Your task to perform on an android device: turn on bluetooth scan Image 0: 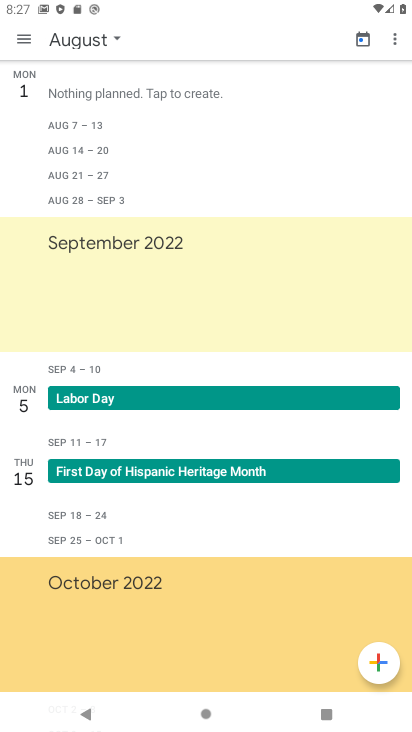
Step 0: press home button
Your task to perform on an android device: turn on bluetooth scan Image 1: 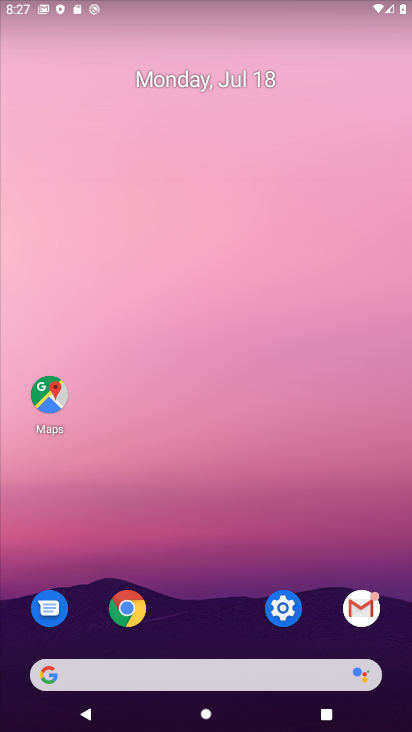
Step 1: click (276, 624)
Your task to perform on an android device: turn on bluetooth scan Image 2: 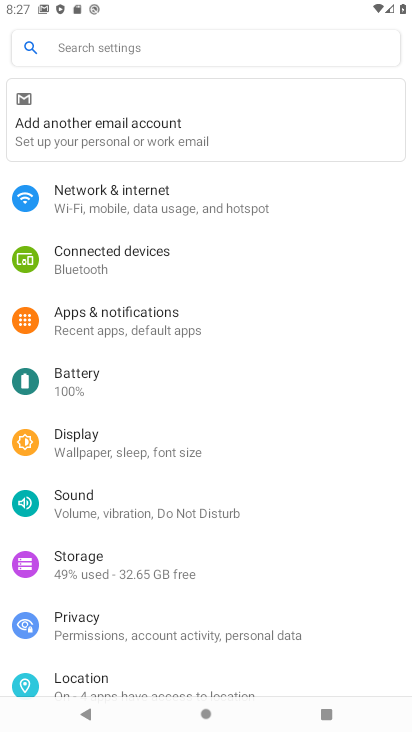
Step 2: click (143, 674)
Your task to perform on an android device: turn on bluetooth scan Image 3: 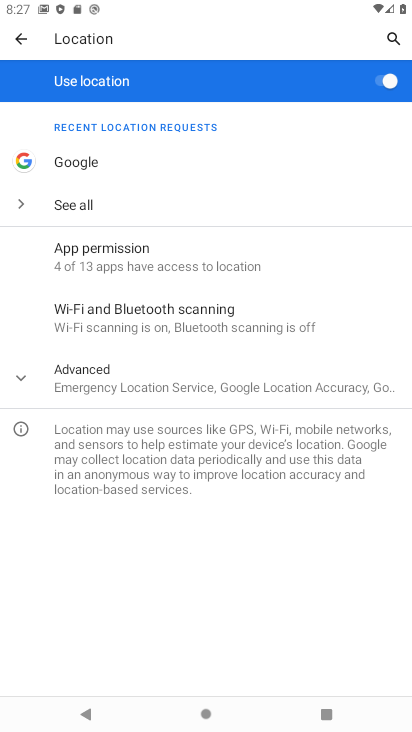
Step 3: click (132, 323)
Your task to perform on an android device: turn on bluetooth scan Image 4: 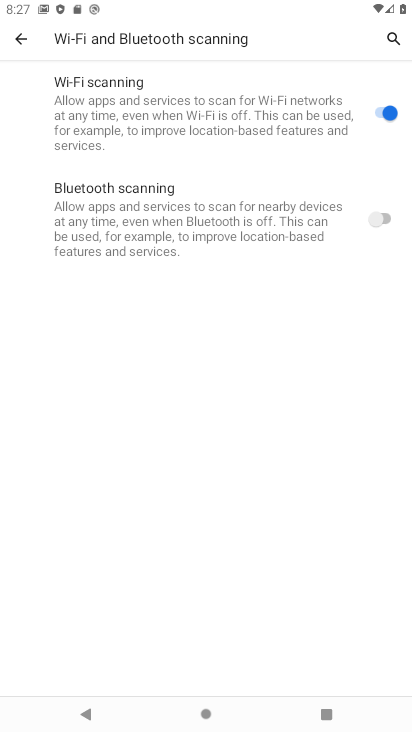
Step 4: click (390, 223)
Your task to perform on an android device: turn on bluetooth scan Image 5: 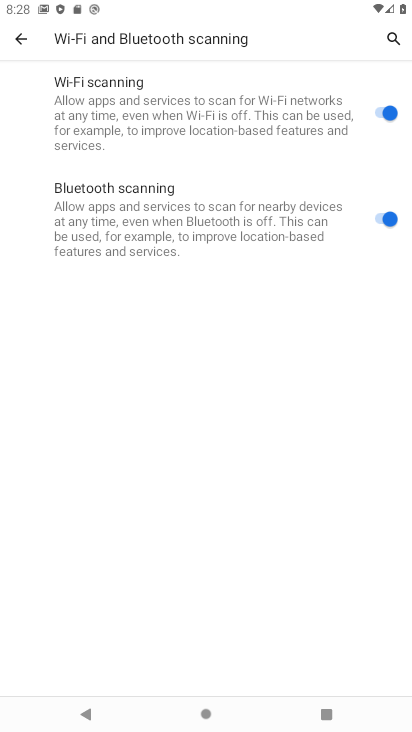
Step 5: task complete